Your task to perform on an android device: change the clock display to show seconds Image 0: 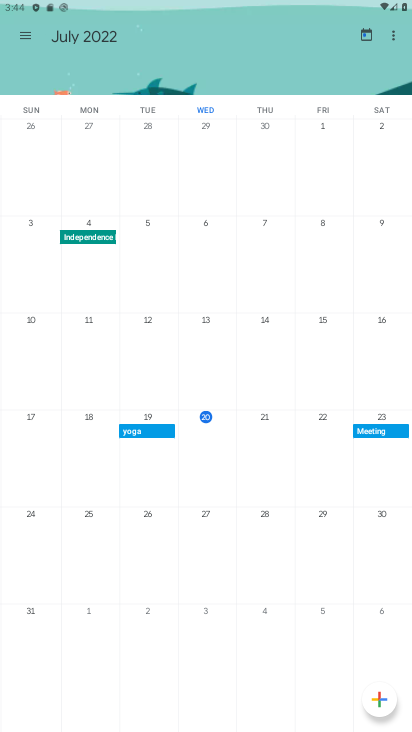
Step 0: press home button
Your task to perform on an android device: change the clock display to show seconds Image 1: 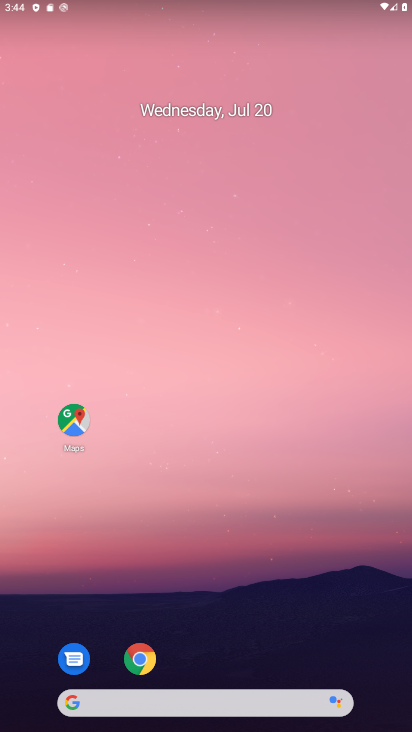
Step 1: drag from (212, 681) to (269, 186)
Your task to perform on an android device: change the clock display to show seconds Image 2: 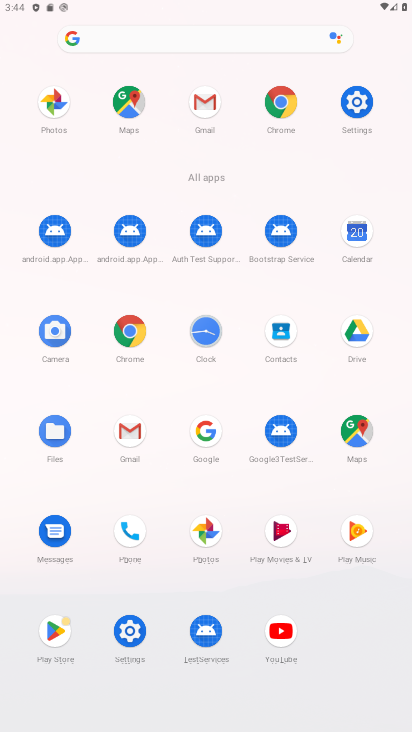
Step 2: click (200, 329)
Your task to perform on an android device: change the clock display to show seconds Image 3: 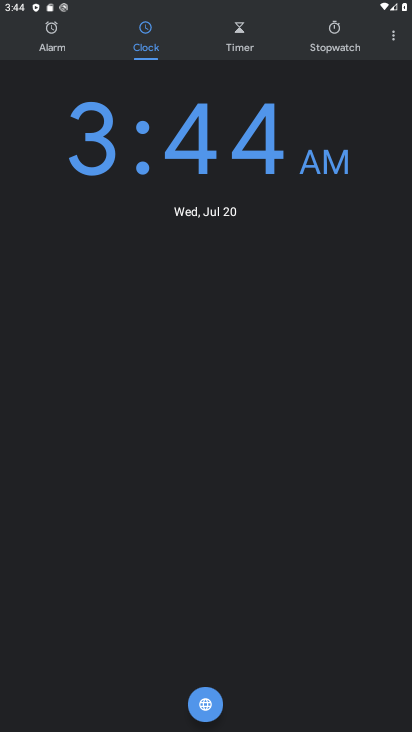
Step 3: click (385, 29)
Your task to perform on an android device: change the clock display to show seconds Image 4: 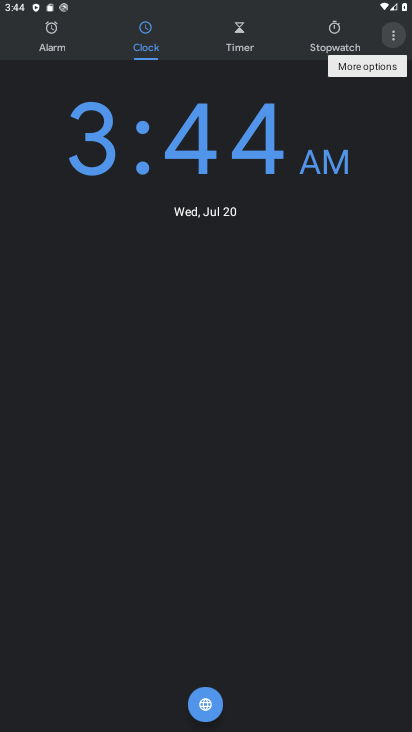
Step 4: click (387, 33)
Your task to perform on an android device: change the clock display to show seconds Image 5: 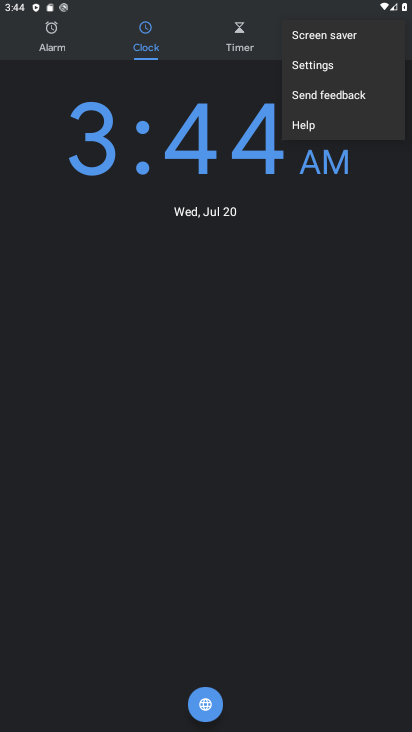
Step 5: click (348, 76)
Your task to perform on an android device: change the clock display to show seconds Image 6: 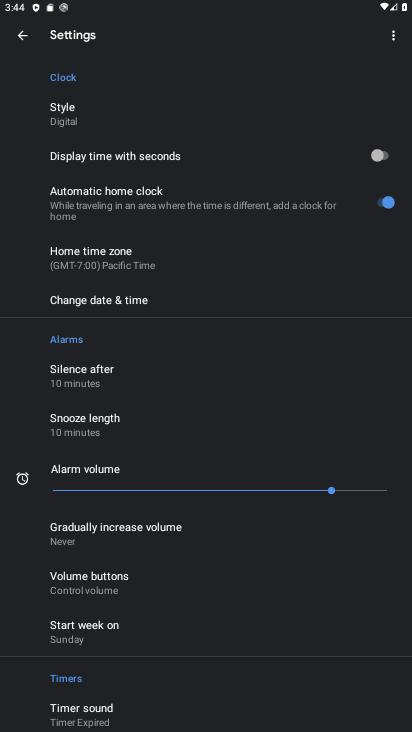
Step 6: click (391, 149)
Your task to perform on an android device: change the clock display to show seconds Image 7: 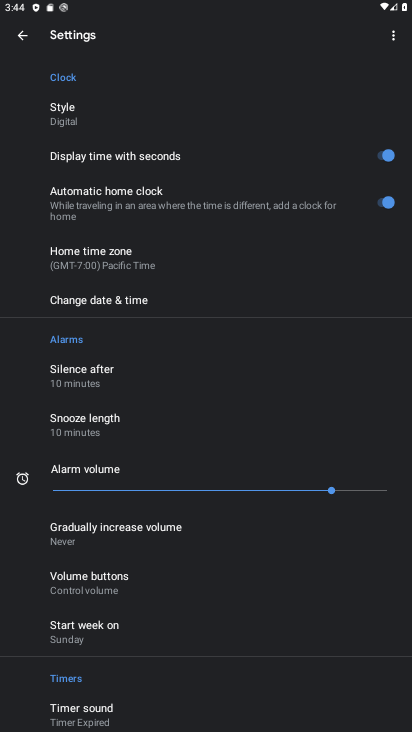
Step 7: task complete